Your task to perform on an android device: Open Yahoo.com Image 0: 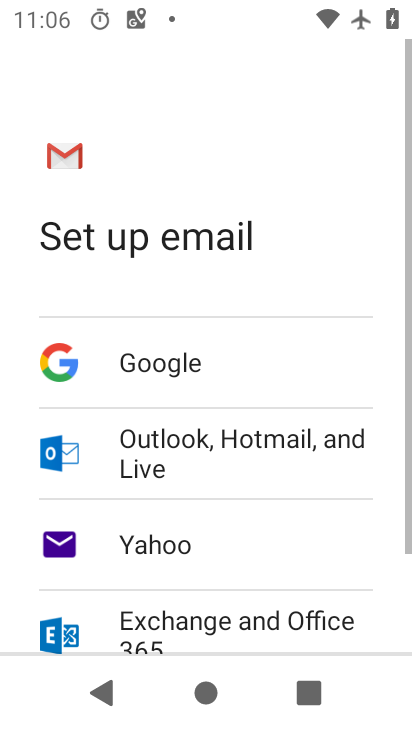
Step 0: press home button
Your task to perform on an android device: Open Yahoo.com Image 1: 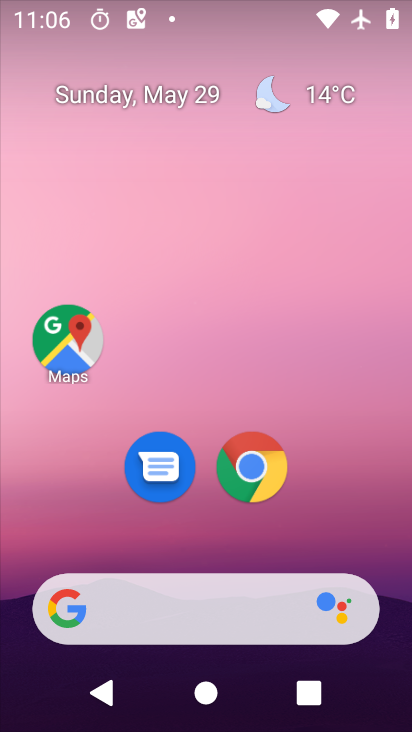
Step 1: click (252, 479)
Your task to perform on an android device: Open Yahoo.com Image 2: 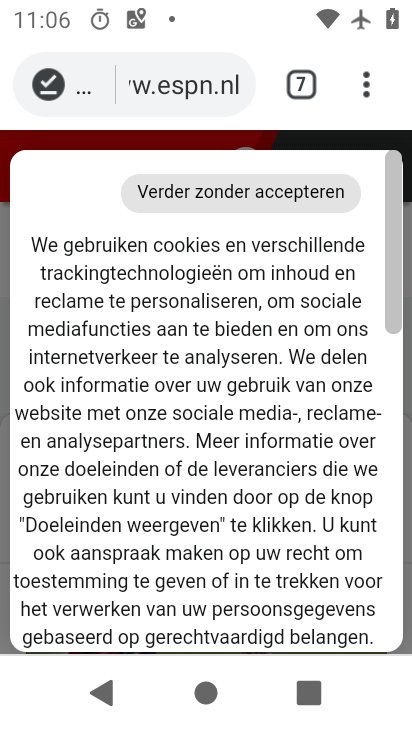
Step 2: click (307, 79)
Your task to perform on an android device: Open Yahoo.com Image 3: 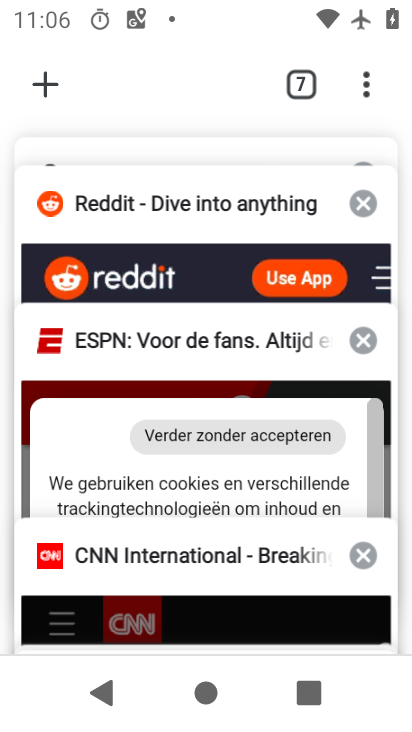
Step 3: drag from (147, 242) to (165, 429)
Your task to perform on an android device: Open Yahoo.com Image 4: 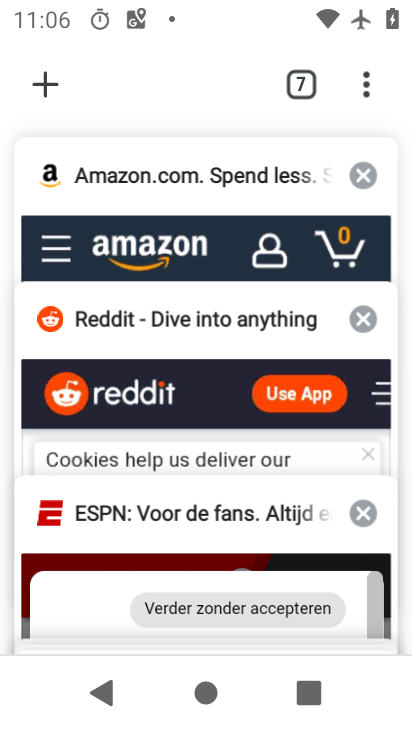
Step 4: drag from (150, 259) to (162, 402)
Your task to perform on an android device: Open Yahoo.com Image 5: 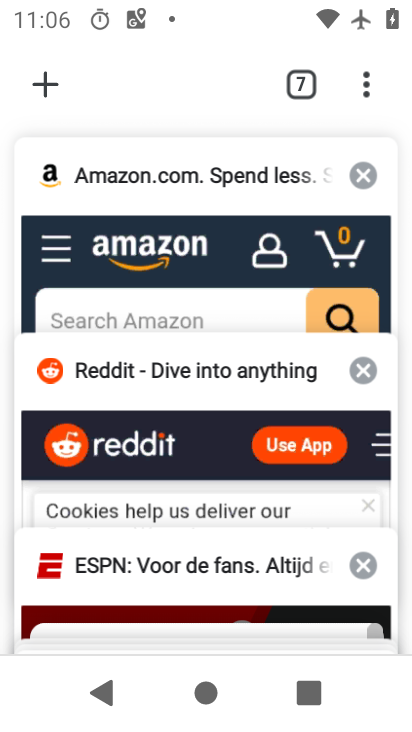
Step 5: drag from (154, 249) to (175, 394)
Your task to perform on an android device: Open Yahoo.com Image 6: 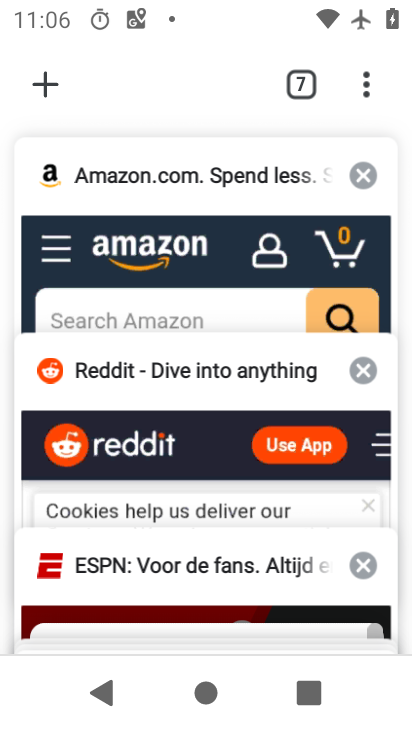
Step 6: drag from (164, 250) to (166, 405)
Your task to perform on an android device: Open Yahoo.com Image 7: 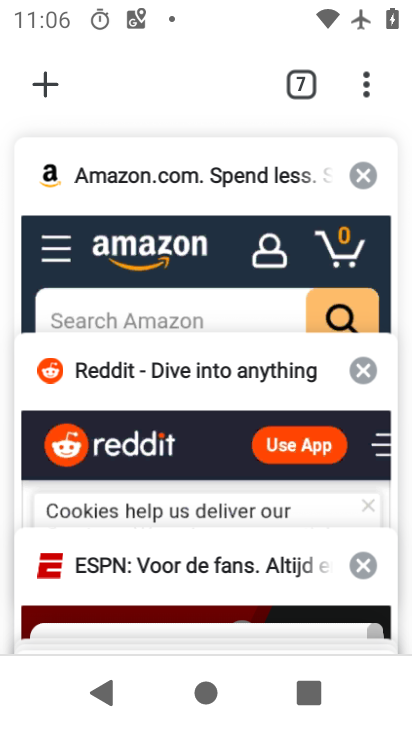
Step 7: drag from (178, 219) to (172, 416)
Your task to perform on an android device: Open Yahoo.com Image 8: 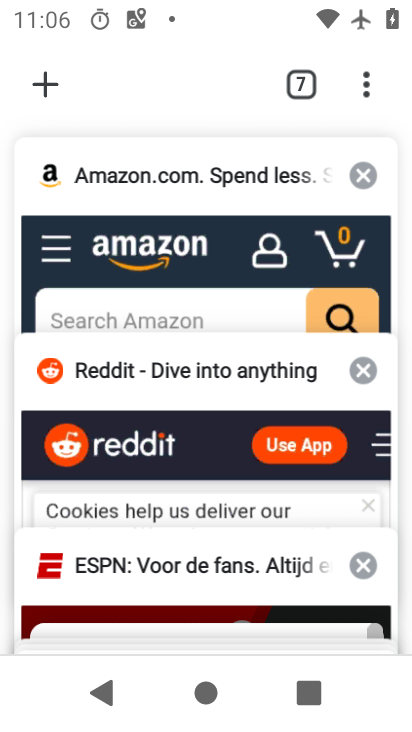
Step 8: drag from (133, 221) to (137, 446)
Your task to perform on an android device: Open Yahoo.com Image 9: 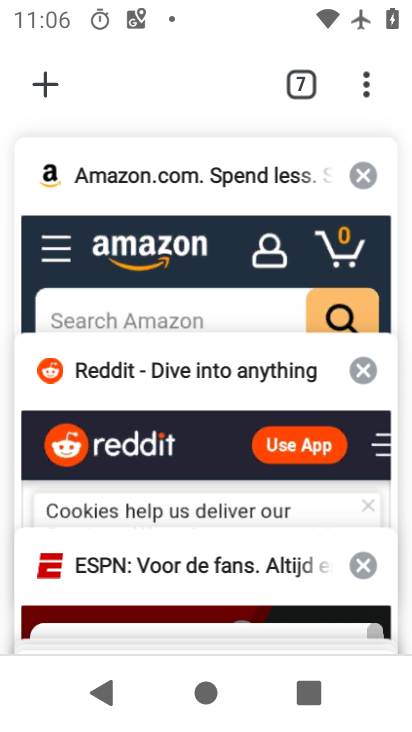
Step 9: click (44, 75)
Your task to perform on an android device: Open Yahoo.com Image 10: 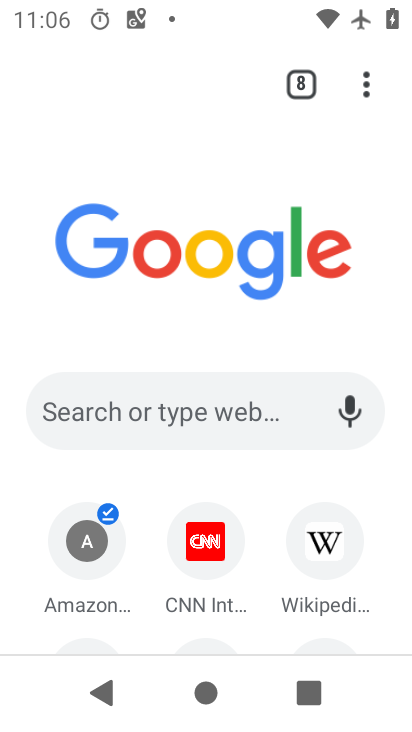
Step 10: click (158, 420)
Your task to perform on an android device: Open Yahoo.com Image 11: 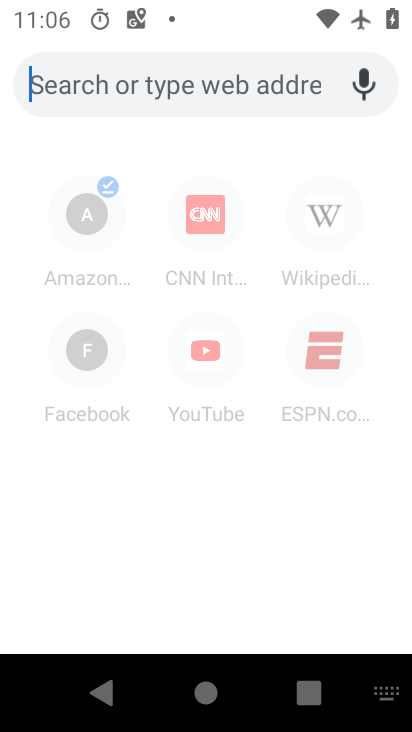
Step 11: type "Yahoo.com"
Your task to perform on an android device: Open Yahoo.com Image 12: 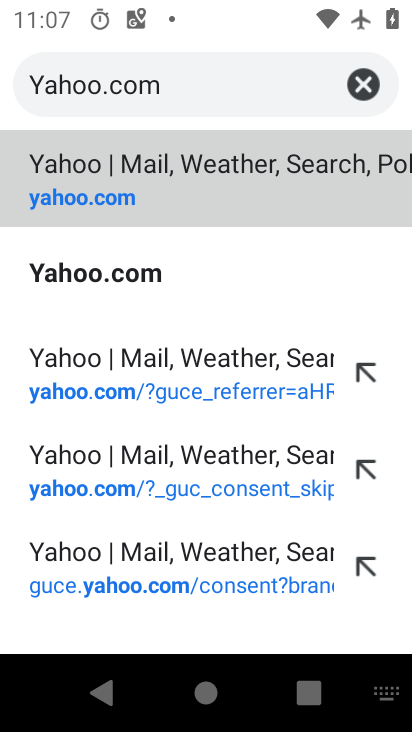
Step 12: click (149, 260)
Your task to perform on an android device: Open Yahoo.com Image 13: 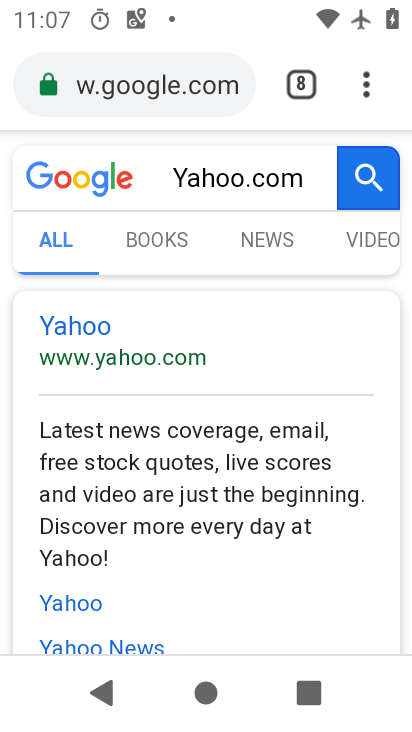
Step 13: click (78, 320)
Your task to perform on an android device: Open Yahoo.com Image 14: 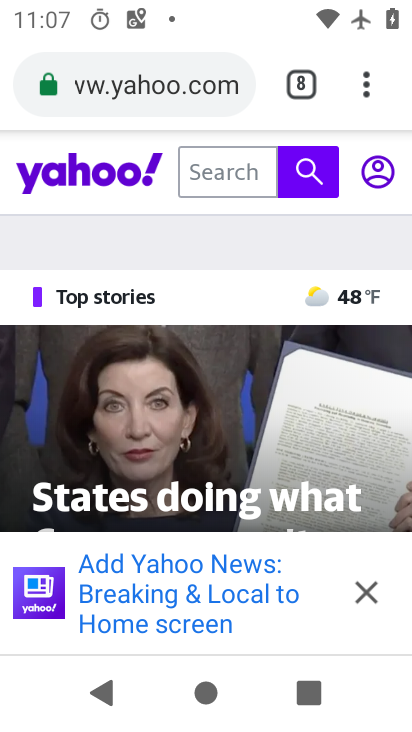
Step 14: task complete